Your task to perform on an android device: change the clock display to analog Image 0: 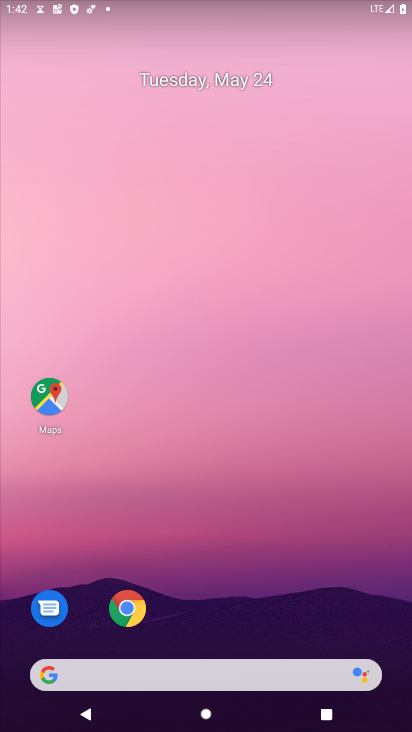
Step 0: drag from (255, 616) to (226, 172)
Your task to perform on an android device: change the clock display to analog Image 1: 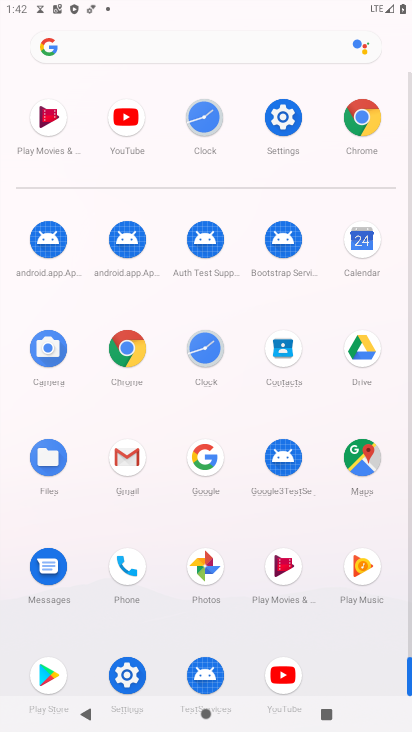
Step 1: click (205, 131)
Your task to perform on an android device: change the clock display to analog Image 2: 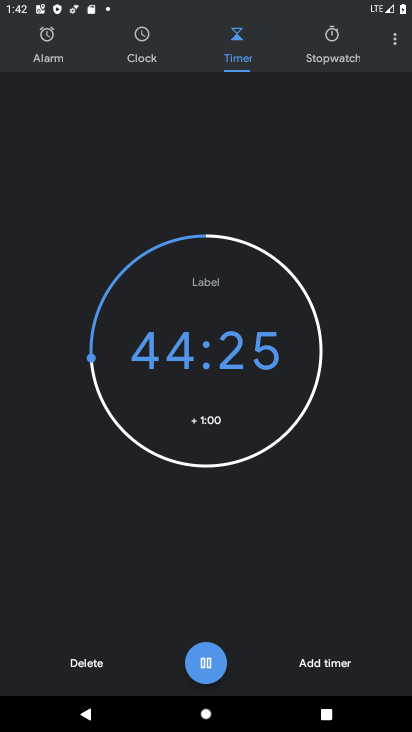
Step 2: click (397, 37)
Your task to perform on an android device: change the clock display to analog Image 3: 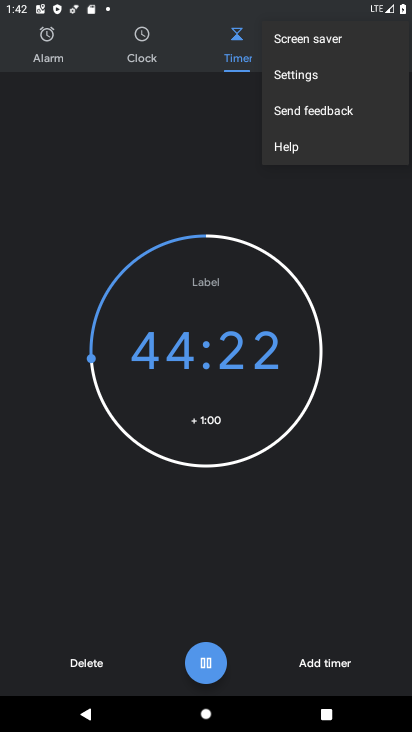
Step 3: click (339, 69)
Your task to perform on an android device: change the clock display to analog Image 4: 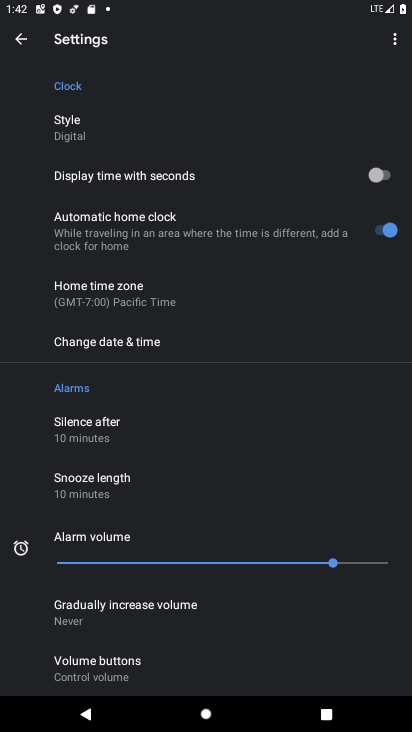
Step 4: click (155, 135)
Your task to perform on an android device: change the clock display to analog Image 5: 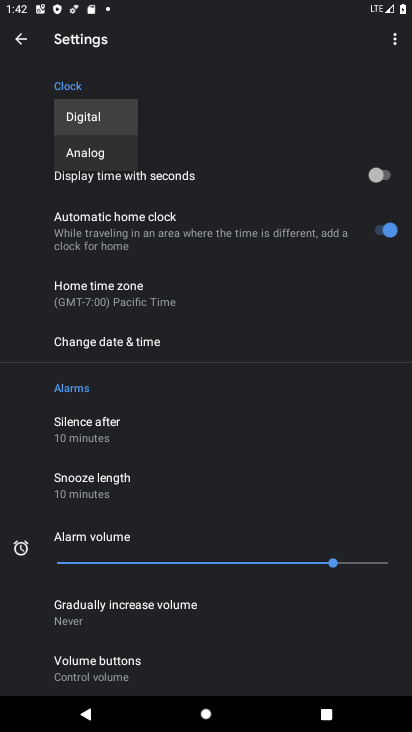
Step 5: click (122, 156)
Your task to perform on an android device: change the clock display to analog Image 6: 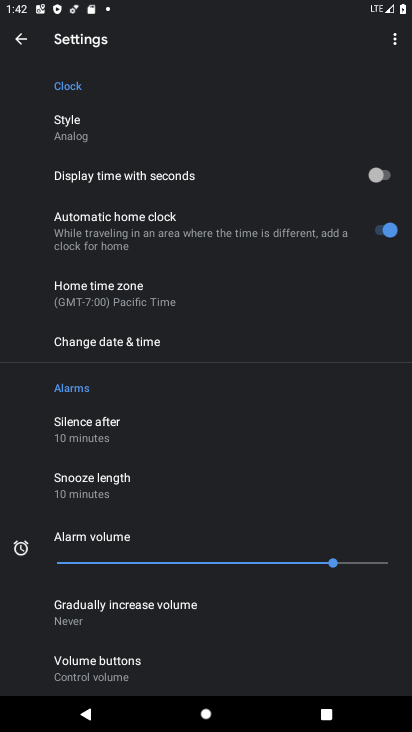
Step 6: task complete